Your task to perform on an android device: Go to Yahoo.com Image 0: 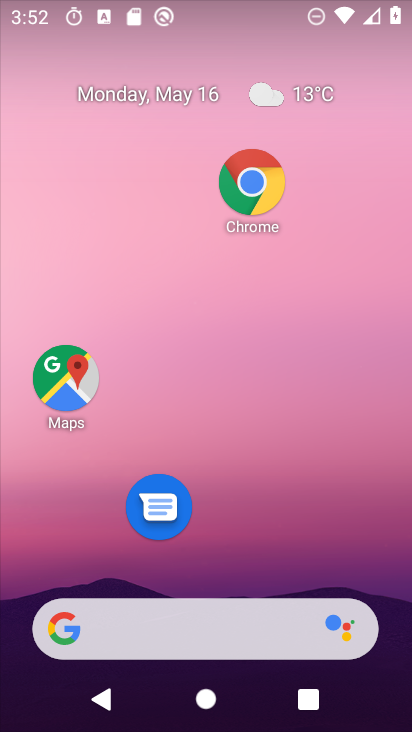
Step 0: drag from (289, 571) to (181, 184)
Your task to perform on an android device: Go to Yahoo.com Image 1: 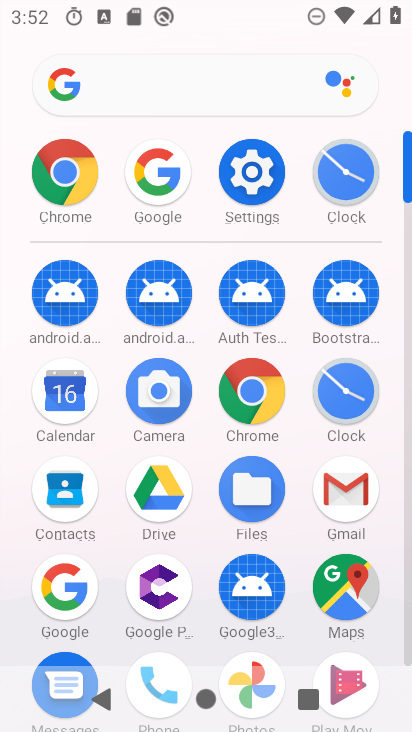
Step 1: click (258, 411)
Your task to perform on an android device: Go to Yahoo.com Image 2: 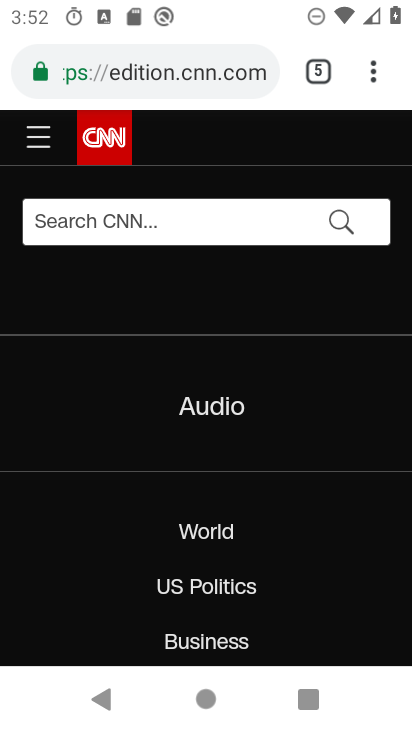
Step 2: click (322, 79)
Your task to perform on an android device: Go to Yahoo.com Image 3: 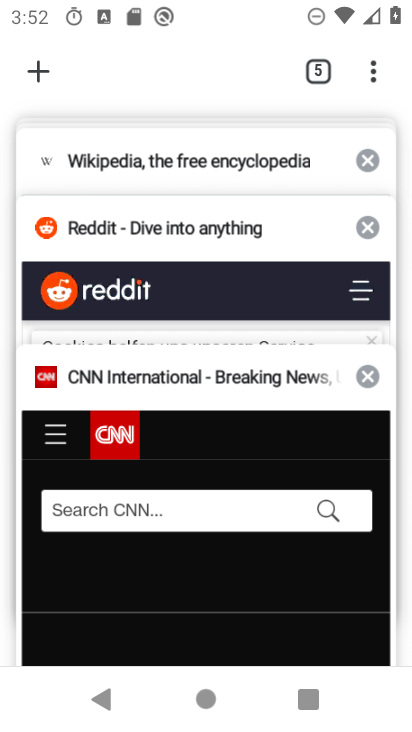
Step 3: drag from (275, 266) to (294, 621)
Your task to perform on an android device: Go to Yahoo.com Image 4: 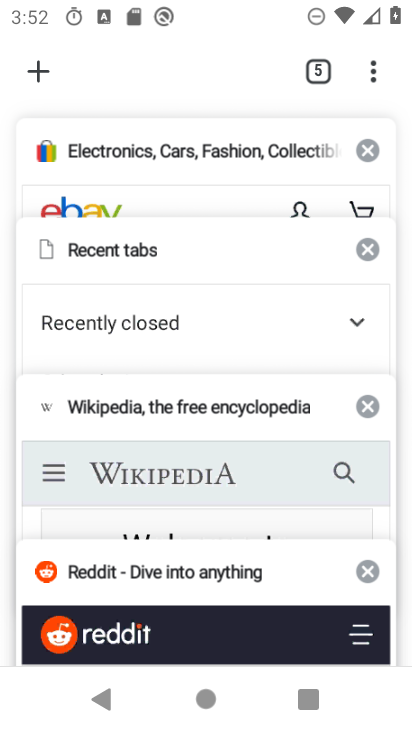
Step 4: drag from (256, 308) to (241, 704)
Your task to perform on an android device: Go to Yahoo.com Image 5: 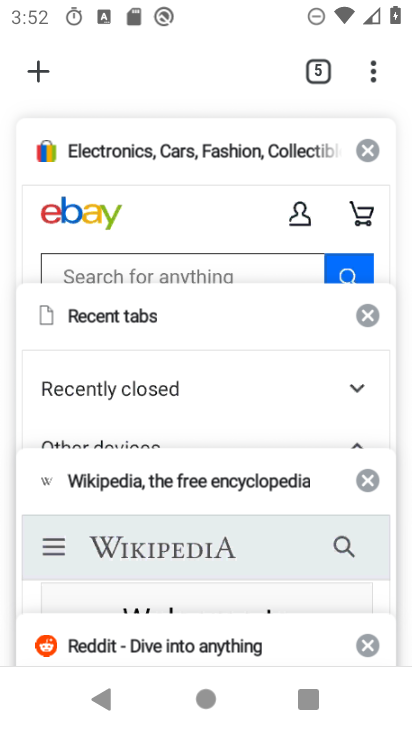
Step 5: drag from (256, 300) to (306, 38)
Your task to perform on an android device: Go to Yahoo.com Image 6: 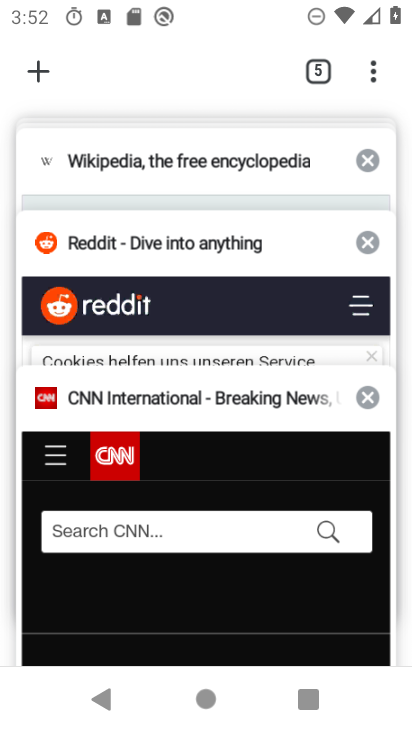
Step 6: click (29, 65)
Your task to perform on an android device: Go to Yahoo.com Image 7: 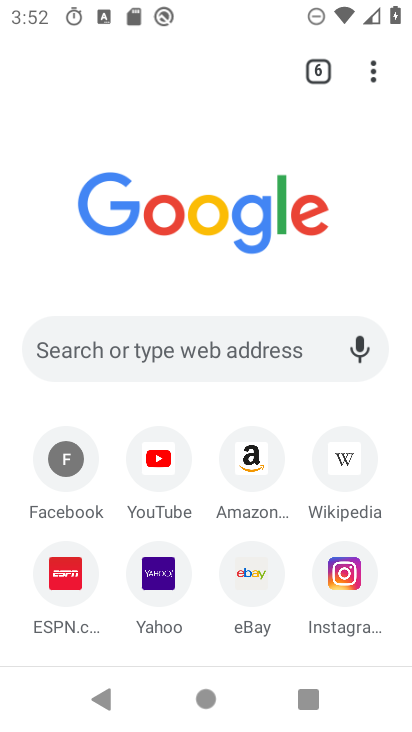
Step 7: click (166, 590)
Your task to perform on an android device: Go to Yahoo.com Image 8: 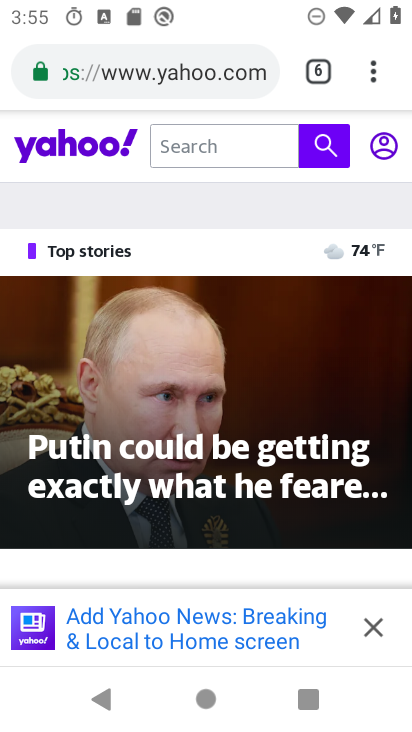
Step 8: task complete